Your task to perform on an android device: Go to ESPN.com Image 0: 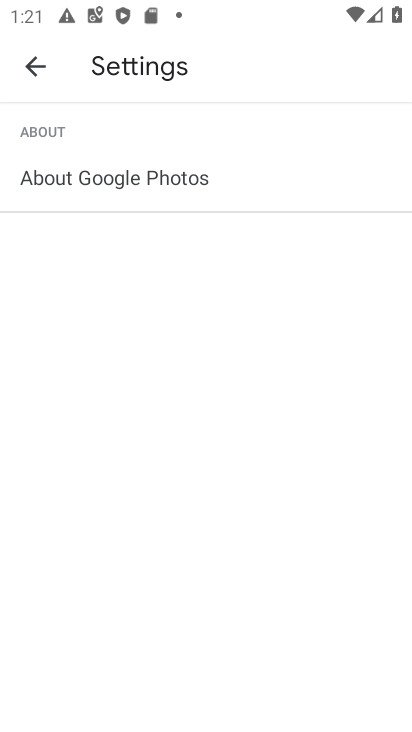
Step 0: press home button
Your task to perform on an android device: Go to ESPN.com Image 1: 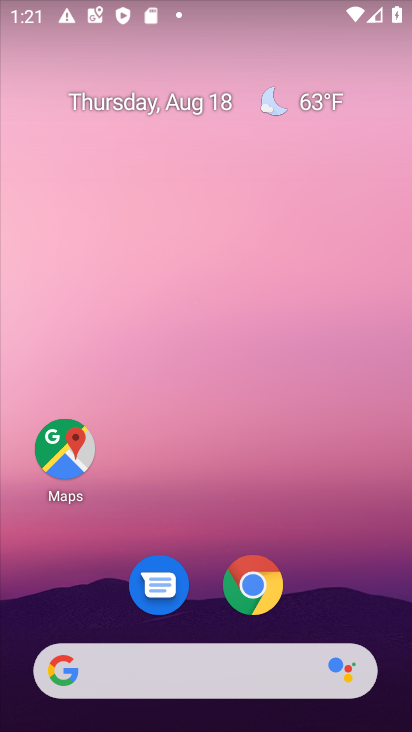
Step 1: click (268, 678)
Your task to perform on an android device: Go to ESPN.com Image 2: 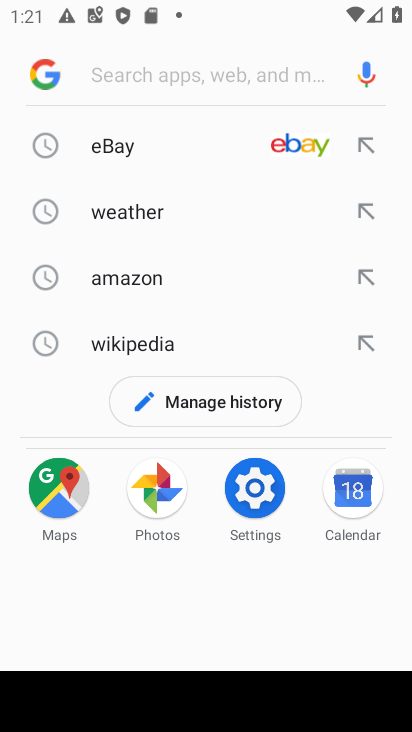
Step 2: type "espn.com"
Your task to perform on an android device: Go to ESPN.com Image 3: 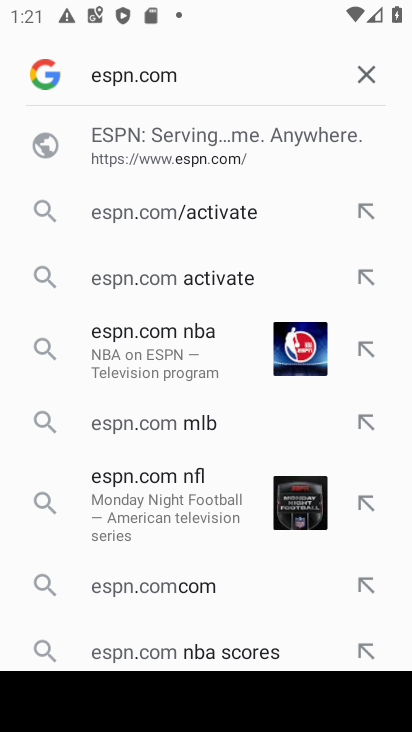
Step 3: click (223, 150)
Your task to perform on an android device: Go to ESPN.com Image 4: 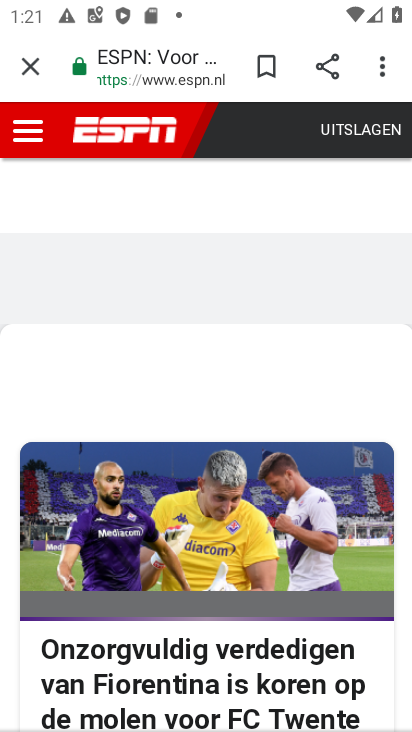
Step 4: task complete